Your task to perform on an android device: Open Google Chrome and click the shortcut for Amazon.com Image 0: 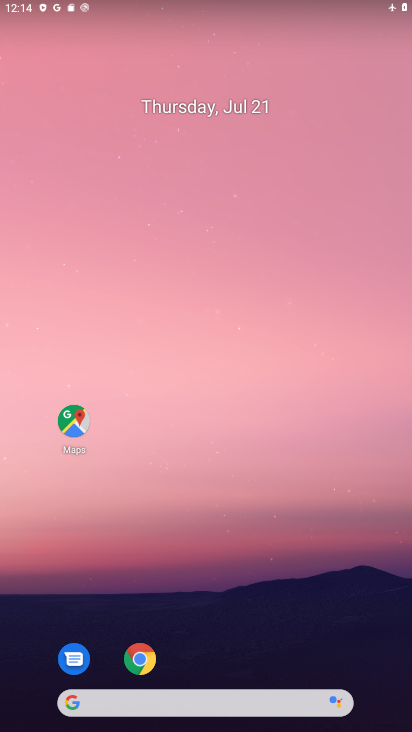
Step 0: drag from (306, 629) to (272, 168)
Your task to perform on an android device: Open Google Chrome and click the shortcut for Amazon.com Image 1: 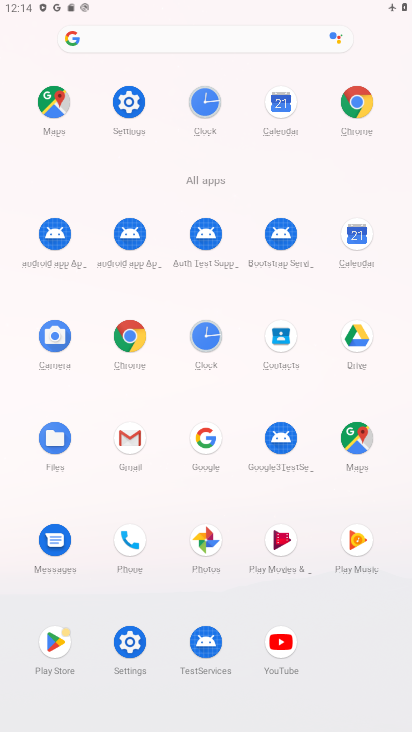
Step 1: click (369, 108)
Your task to perform on an android device: Open Google Chrome and click the shortcut for Amazon.com Image 2: 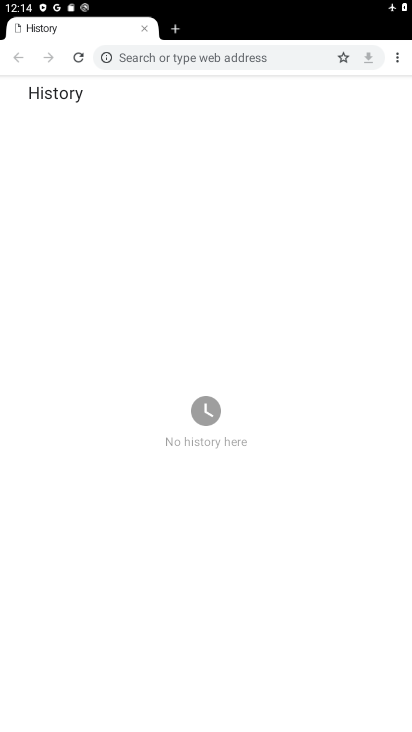
Step 2: click (168, 26)
Your task to perform on an android device: Open Google Chrome and click the shortcut for Amazon.com Image 3: 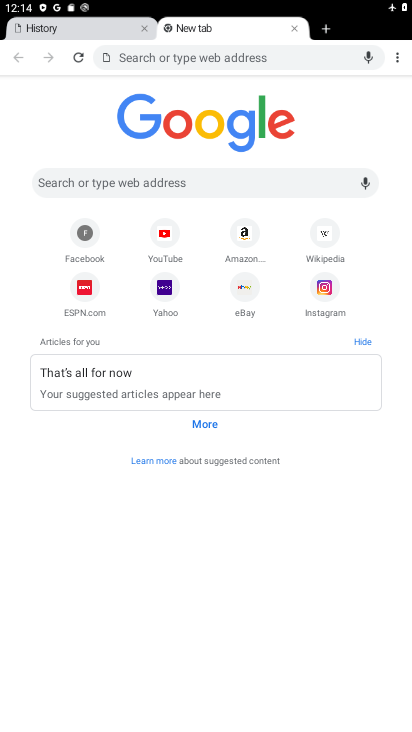
Step 3: click (251, 242)
Your task to perform on an android device: Open Google Chrome and click the shortcut for Amazon.com Image 4: 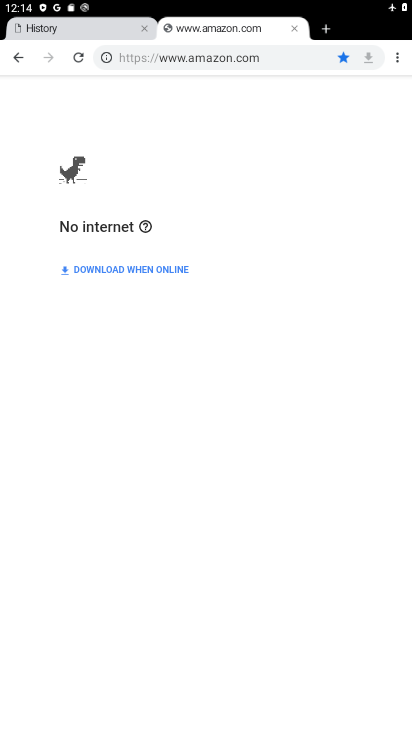
Step 4: task complete